Your task to perform on an android device: Go to network settings Image 0: 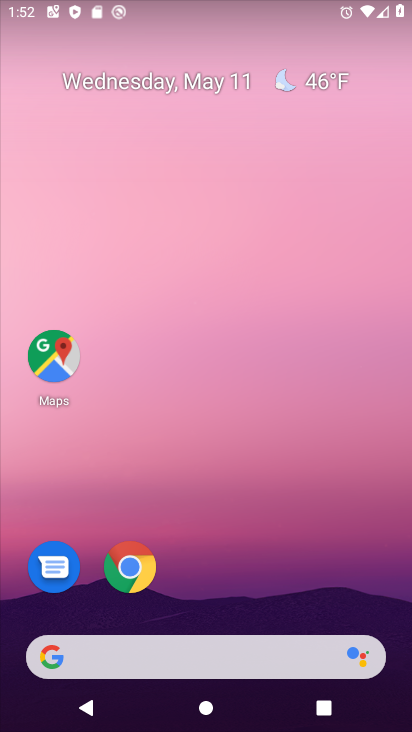
Step 0: drag from (194, 593) to (238, 8)
Your task to perform on an android device: Go to network settings Image 1: 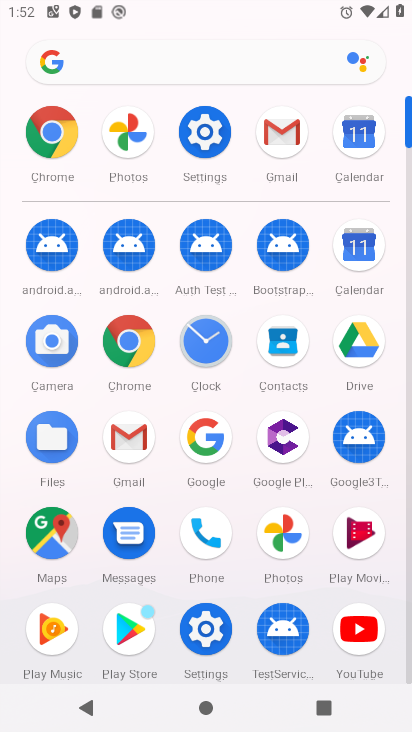
Step 1: click (227, 153)
Your task to perform on an android device: Go to network settings Image 2: 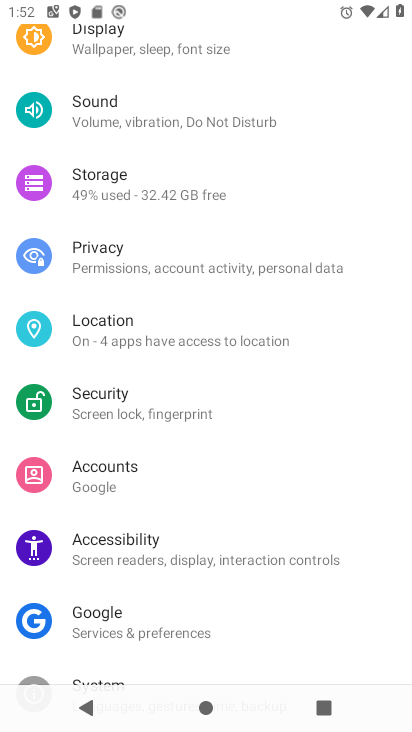
Step 2: drag from (148, 185) to (101, 656)
Your task to perform on an android device: Go to network settings Image 3: 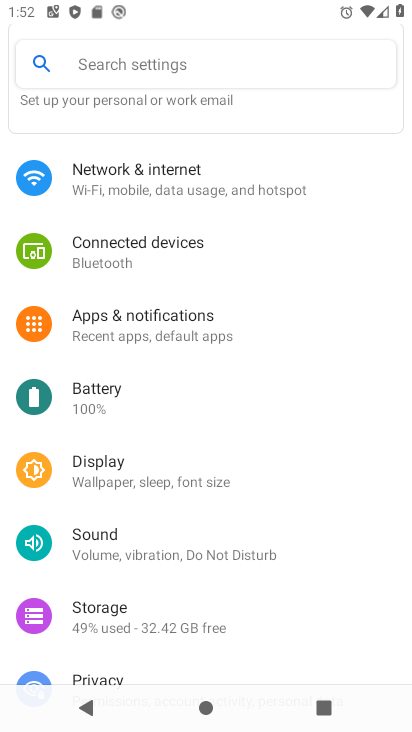
Step 3: click (147, 180)
Your task to perform on an android device: Go to network settings Image 4: 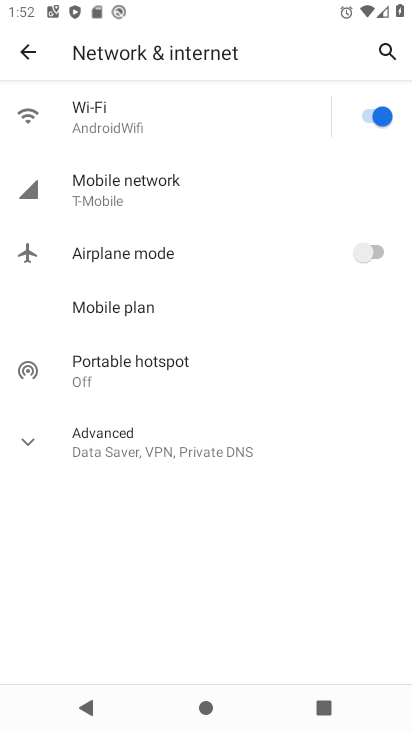
Step 4: click (140, 187)
Your task to perform on an android device: Go to network settings Image 5: 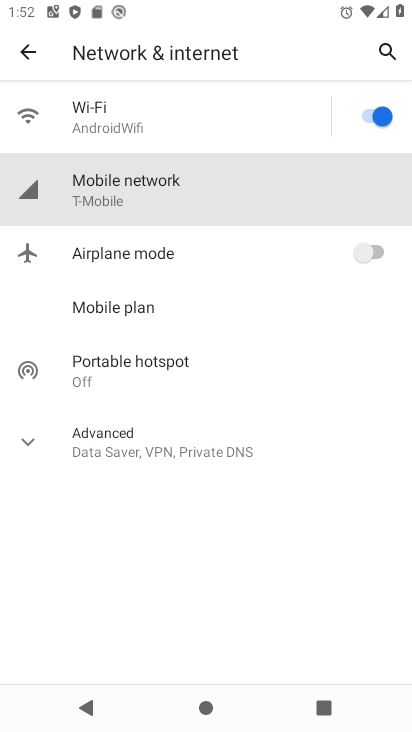
Step 5: task complete